Your task to perform on an android device: change keyboard looks Image 0: 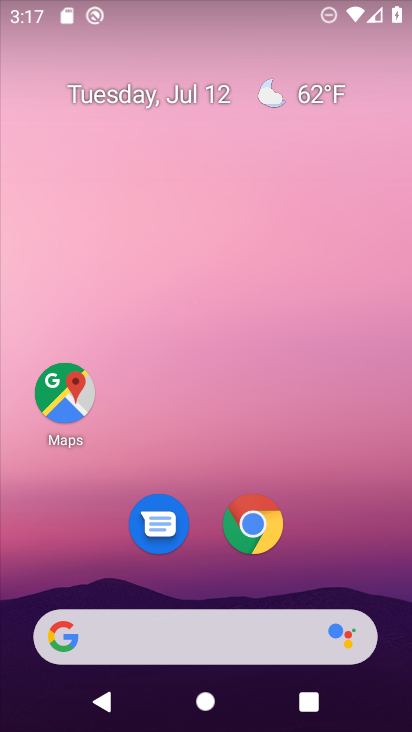
Step 0: drag from (347, 551) to (356, 29)
Your task to perform on an android device: change keyboard looks Image 1: 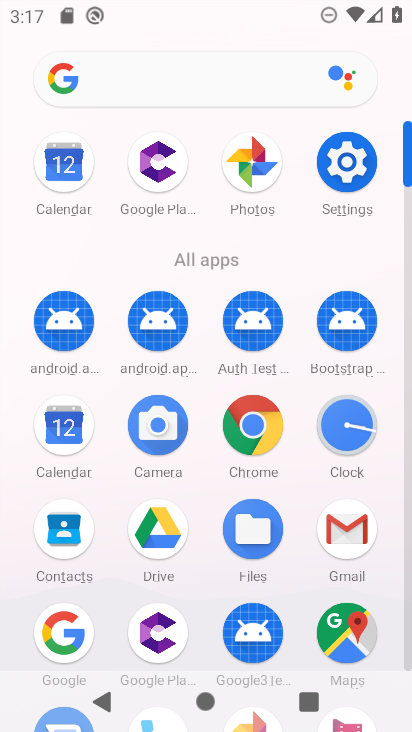
Step 1: click (359, 159)
Your task to perform on an android device: change keyboard looks Image 2: 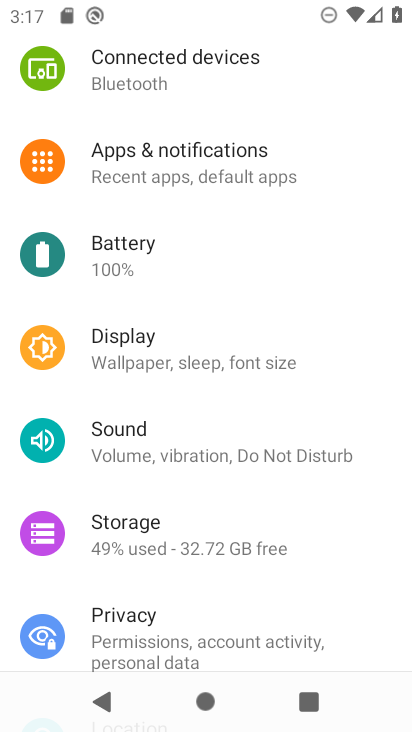
Step 2: drag from (279, 497) to (250, 37)
Your task to perform on an android device: change keyboard looks Image 3: 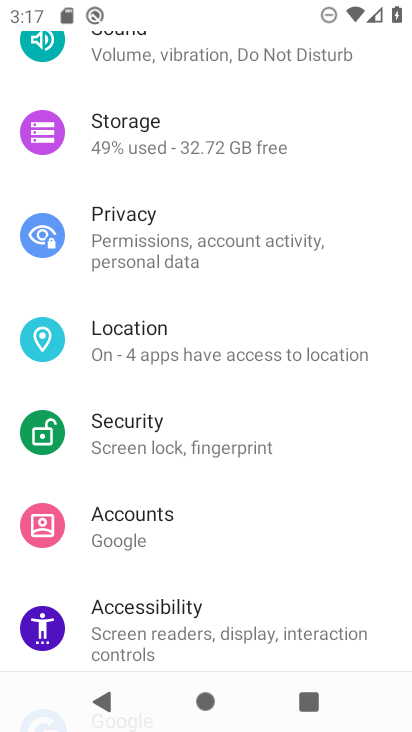
Step 3: drag from (240, 579) to (276, 46)
Your task to perform on an android device: change keyboard looks Image 4: 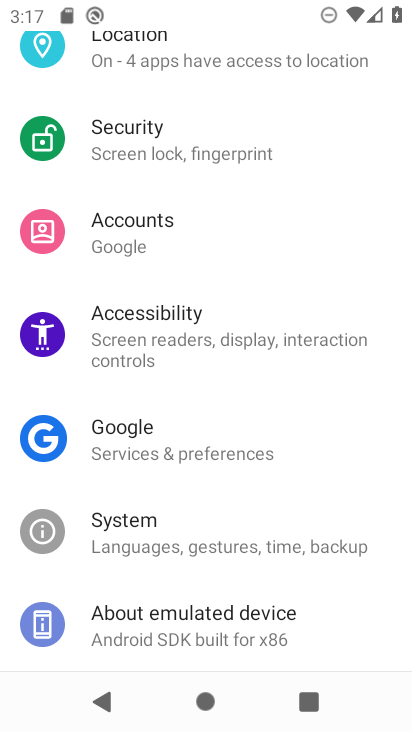
Step 4: click (249, 532)
Your task to perform on an android device: change keyboard looks Image 5: 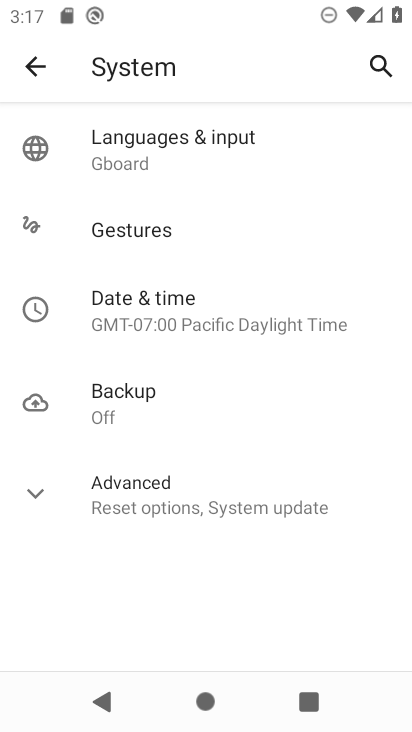
Step 5: click (202, 138)
Your task to perform on an android device: change keyboard looks Image 6: 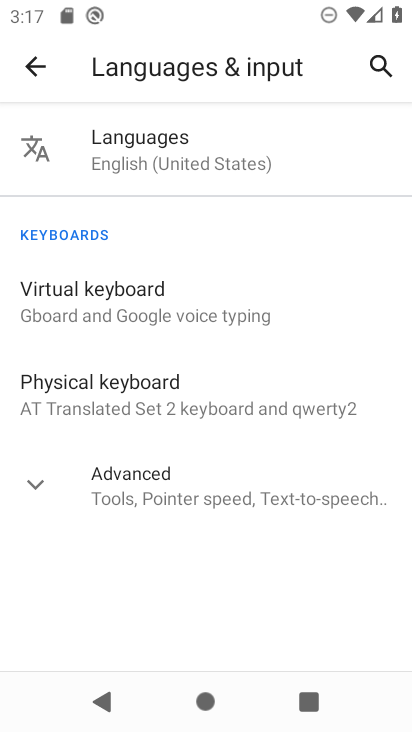
Step 6: click (134, 299)
Your task to perform on an android device: change keyboard looks Image 7: 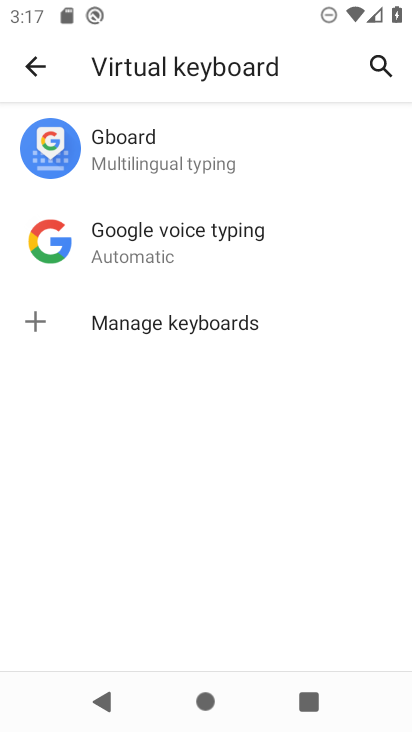
Step 7: click (156, 153)
Your task to perform on an android device: change keyboard looks Image 8: 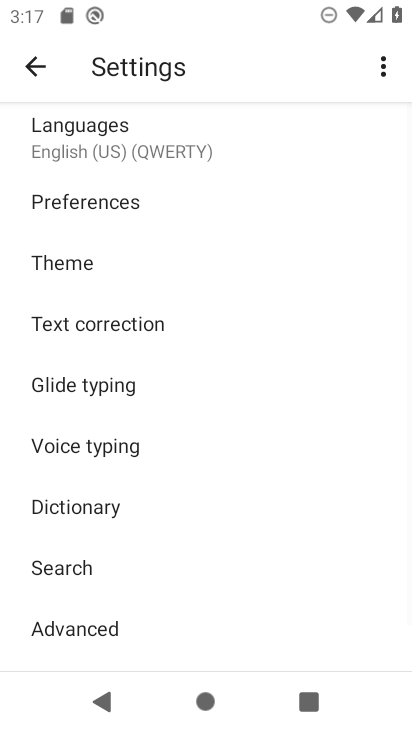
Step 8: click (74, 257)
Your task to perform on an android device: change keyboard looks Image 9: 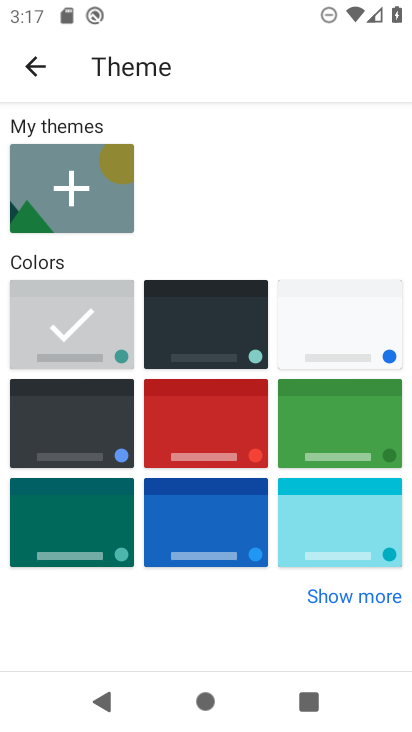
Step 9: click (184, 306)
Your task to perform on an android device: change keyboard looks Image 10: 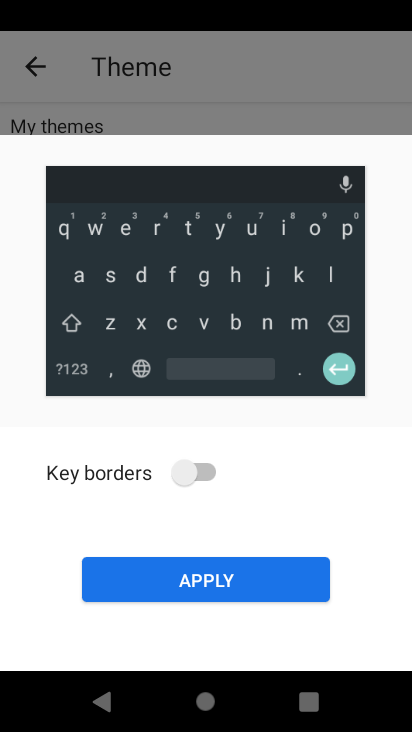
Step 10: click (198, 464)
Your task to perform on an android device: change keyboard looks Image 11: 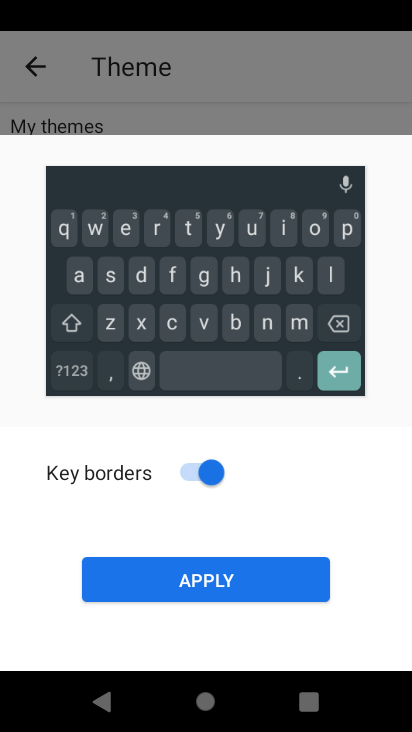
Step 11: click (250, 580)
Your task to perform on an android device: change keyboard looks Image 12: 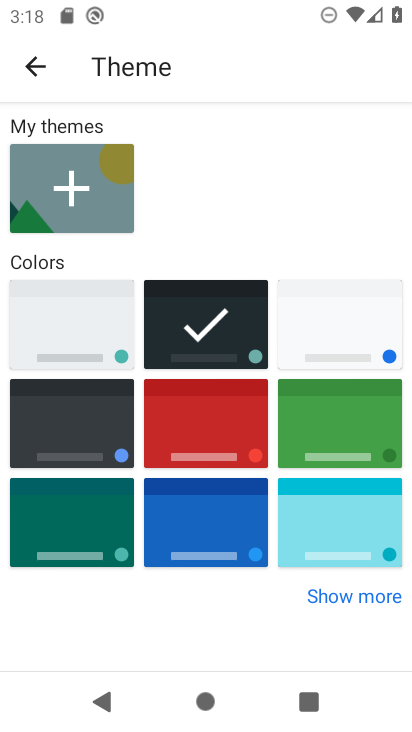
Step 12: task complete